Your task to perform on an android device: Open CNN.com Image 0: 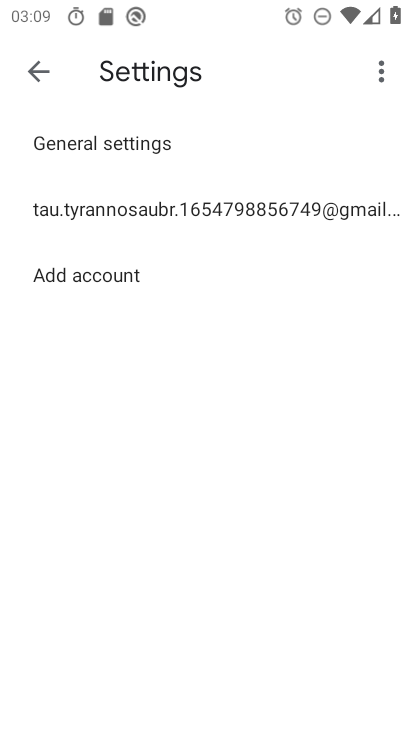
Step 0: press home button
Your task to perform on an android device: Open CNN.com Image 1: 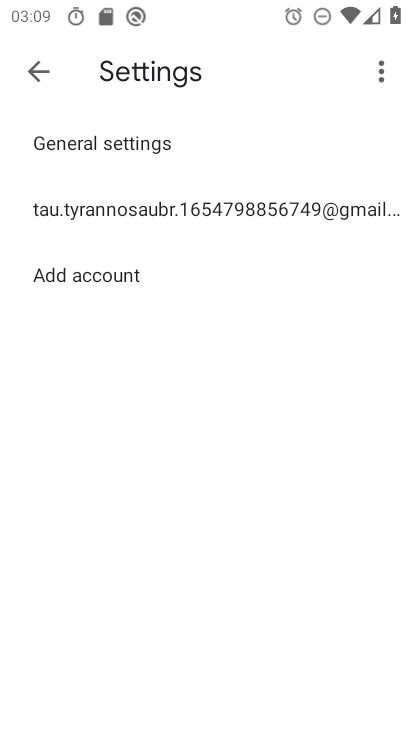
Step 1: press home button
Your task to perform on an android device: Open CNN.com Image 2: 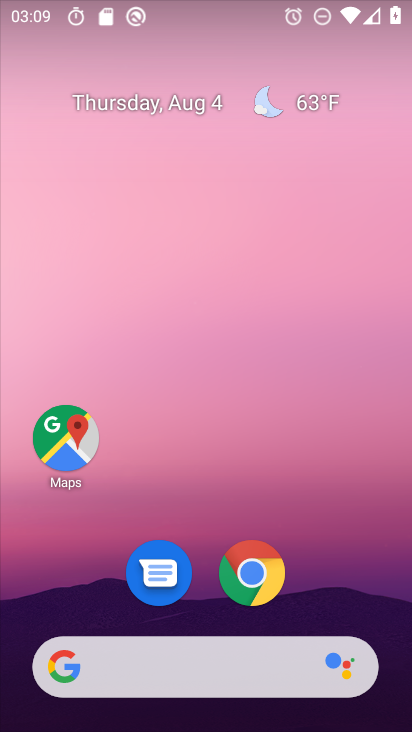
Step 2: drag from (341, 571) to (256, 39)
Your task to perform on an android device: Open CNN.com Image 3: 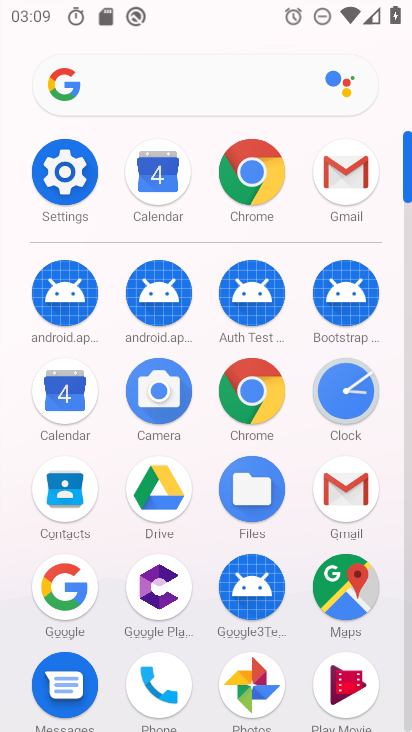
Step 3: click (248, 397)
Your task to perform on an android device: Open CNN.com Image 4: 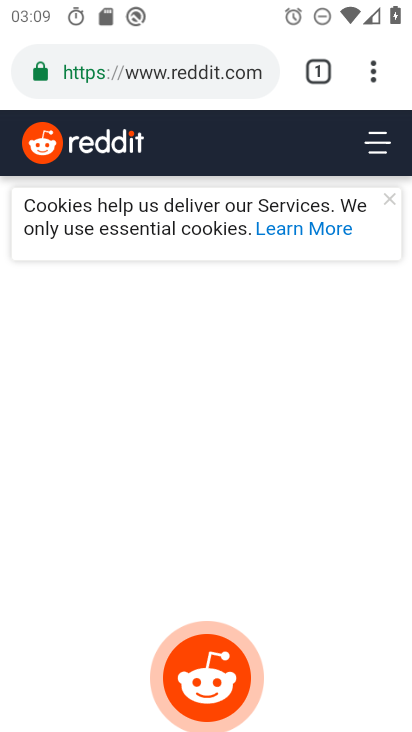
Step 4: click (234, 73)
Your task to perform on an android device: Open CNN.com Image 5: 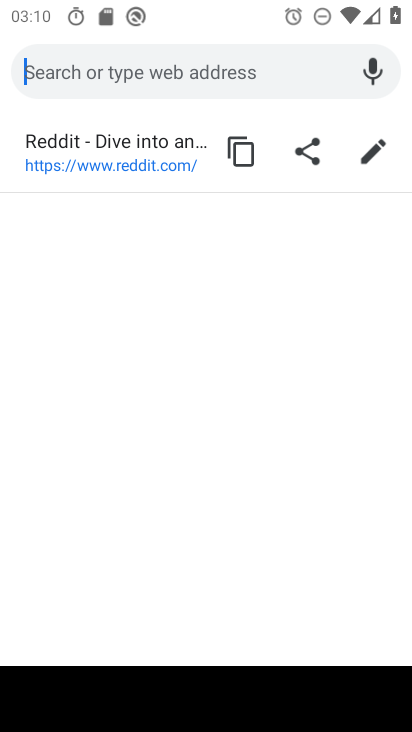
Step 5: type "cnn.com"
Your task to perform on an android device: Open CNN.com Image 6: 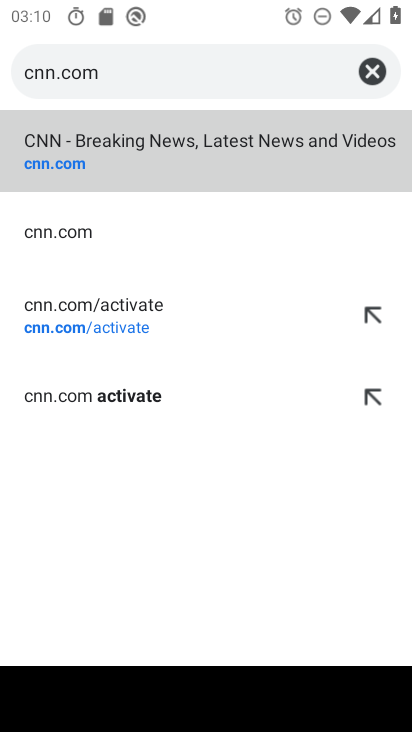
Step 6: click (155, 157)
Your task to perform on an android device: Open CNN.com Image 7: 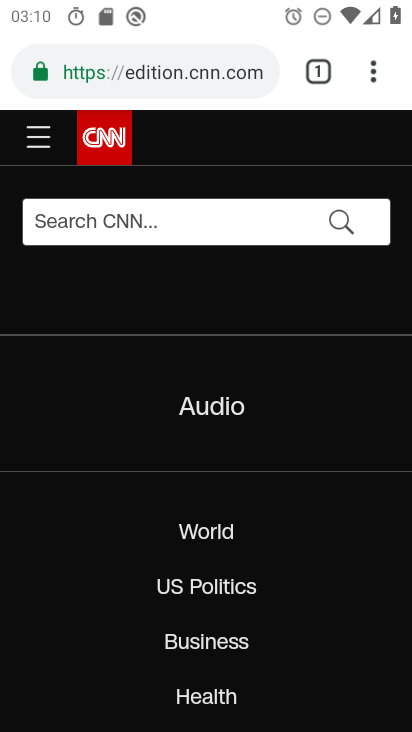
Step 7: task complete